Your task to perform on an android device: move a message to another label in the gmail app Image 0: 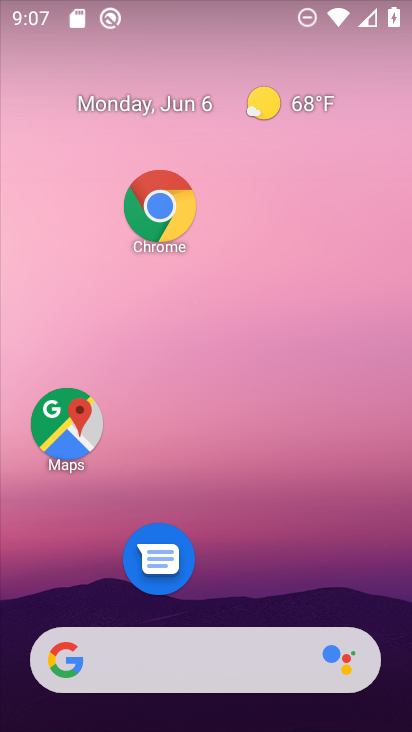
Step 0: drag from (285, 634) to (205, 142)
Your task to perform on an android device: move a message to another label in the gmail app Image 1: 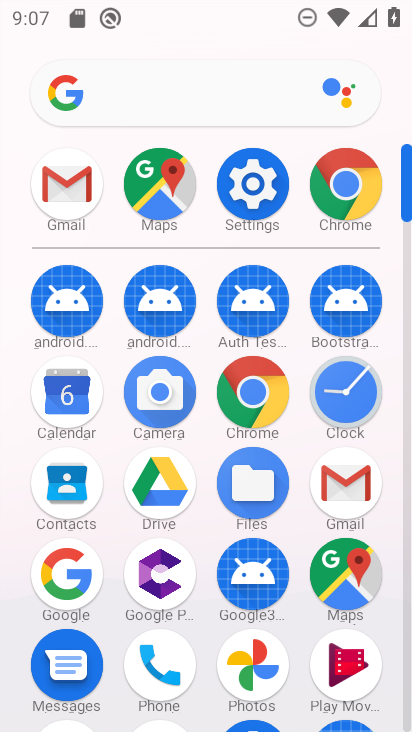
Step 1: click (345, 488)
Your task to perform on an android device: move a message to another label in the gmail app Image 2: 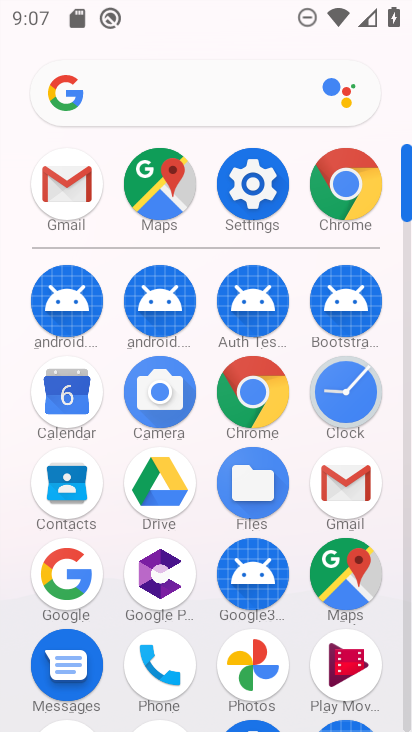
Step 2: click (345, 487)
Your task to perform on an android device: move a message to another label in the gmail app Image 3: 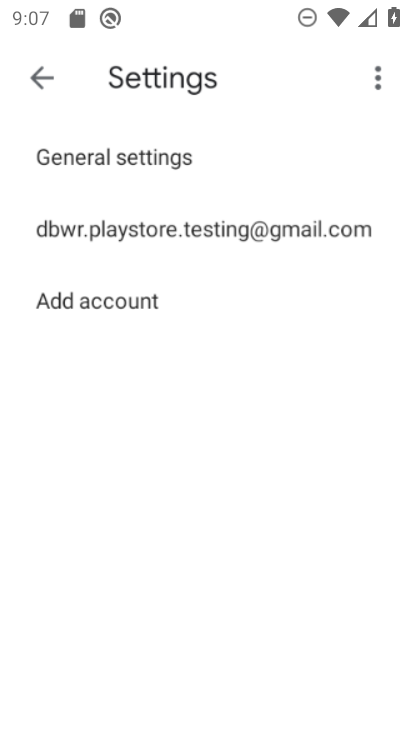
Step 3: click (345, 487)
Your task to perform on an android device: move a message to another label in the gmail app Image 4: 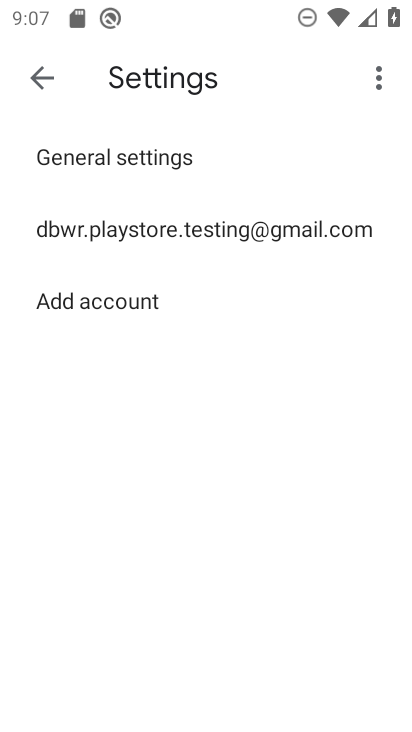
Step 4: click (346, 488)
Your task to perform on an android device: move a message to another label in the gmail app Image 5: 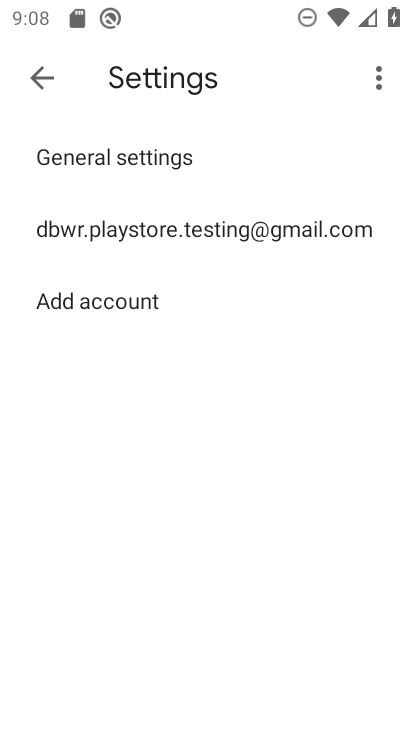
Step 5: click (38, 71)
Your task to perform on an android device: move a message to another label in the gmail app Image 6: 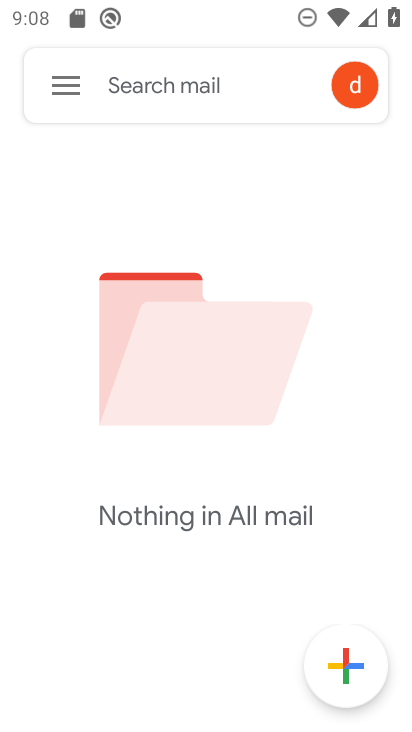
Step 6: click (38, 71)
Your task to perform on an android device: move a message to another label in the gmail app Image 7: 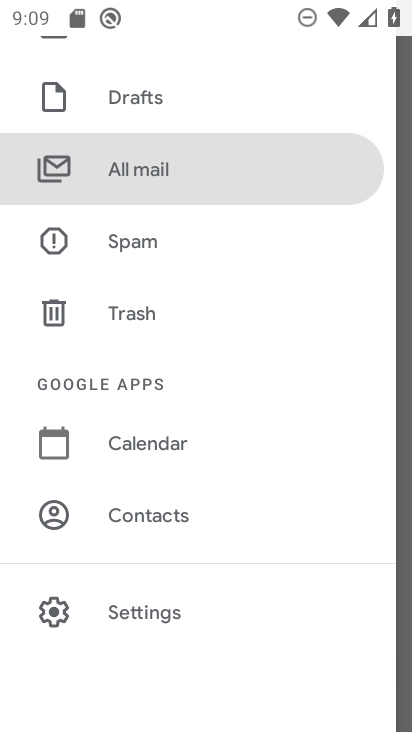
Step 7: click (164, 169)
Your task to perform on an android device: move a message to another label in the gmail app Image 8: 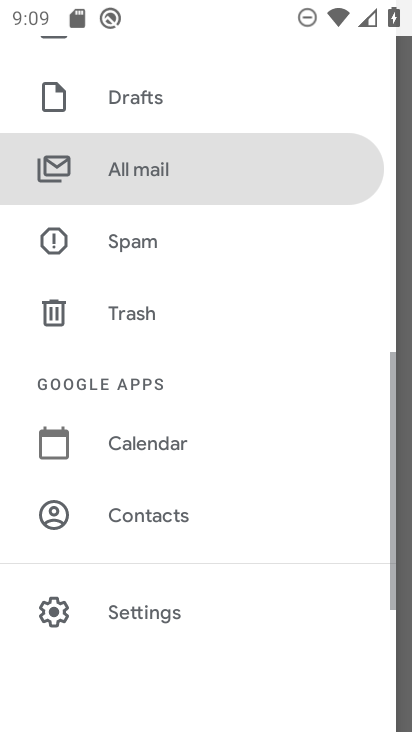
Step 8: click (165, 170)
Your task to perform on an android device: move a message to another label in the gmail app Image 9: 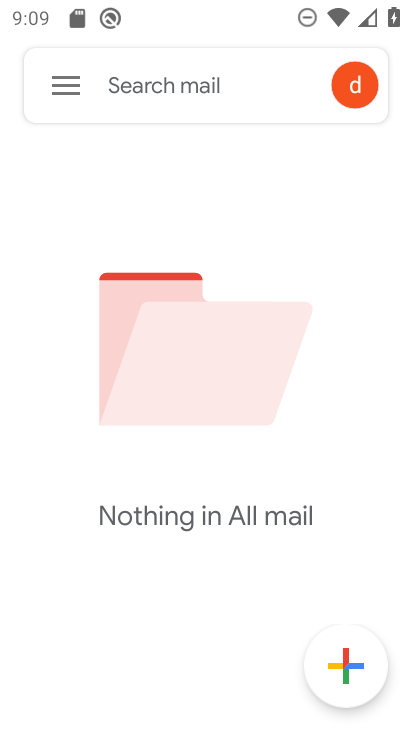
Step 9: task complete